Your task to perform on an android device: turn pop-ups on in chrome Image 0: 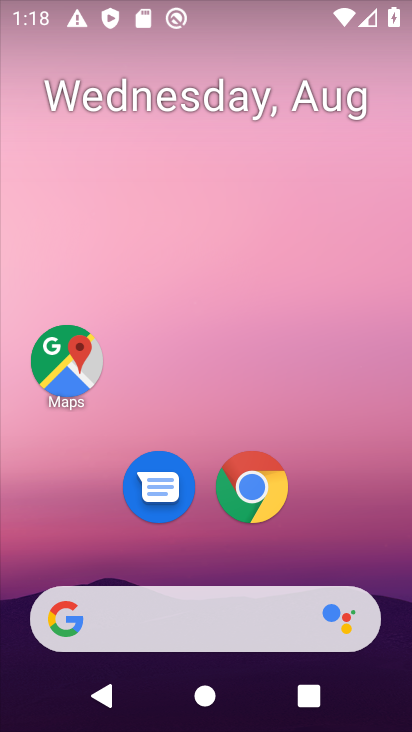
Step 0: press home button
Your task to perform on an android device: turn pop-ups on in chrome Image 1: 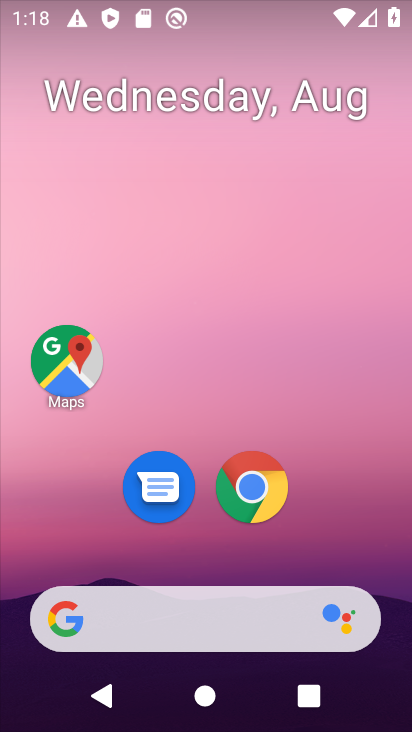
Step 1: drag from (323, 551) to (340, 97)
Your task to perform on an android device: turn pop-ups on in chrome Image 2: 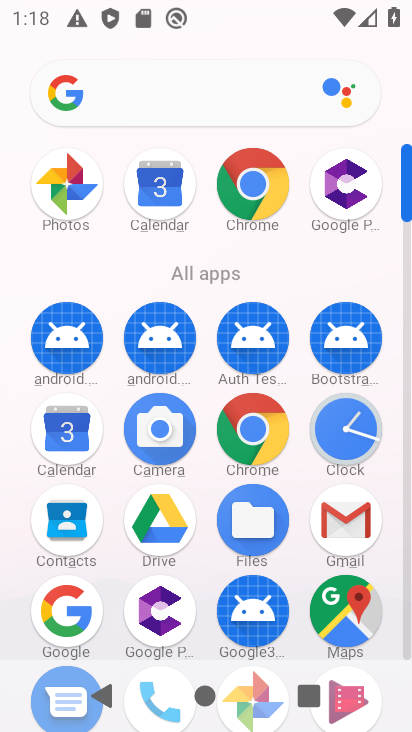
Step 2: click (251, 424)
Your task to perform on an android device: turn pop-ups on in chrome Image 3: 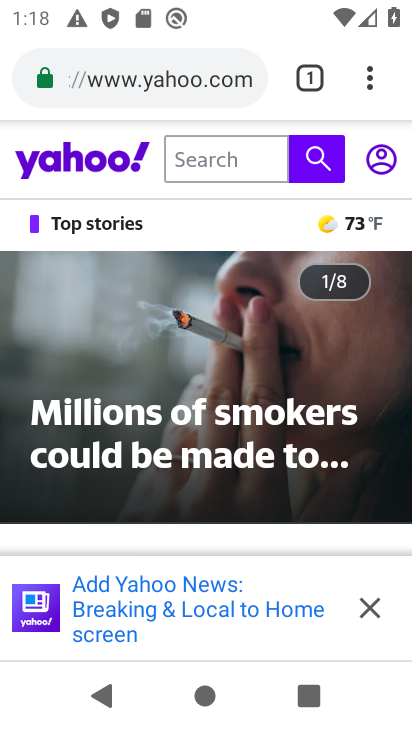
Step 3: drag from (374, 80) to (166, 549)
Your task to perform on an android device: turn pop-ups on in chrome Image 4: 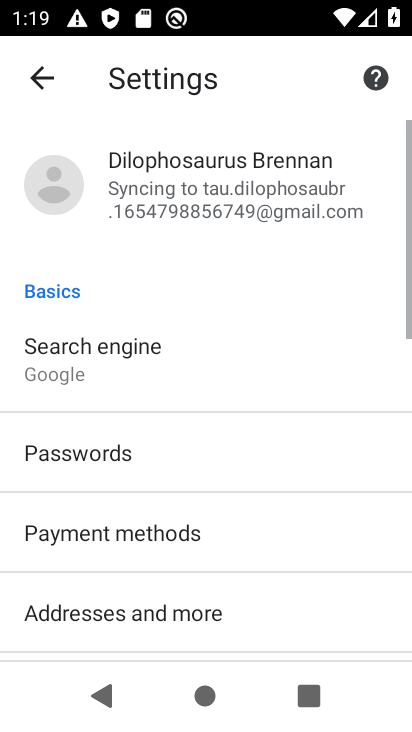
Step 4: drag from (276, 613) to (291, 229)
Your task to perform on an android device: turn pop-ups on in chrome Image 5: 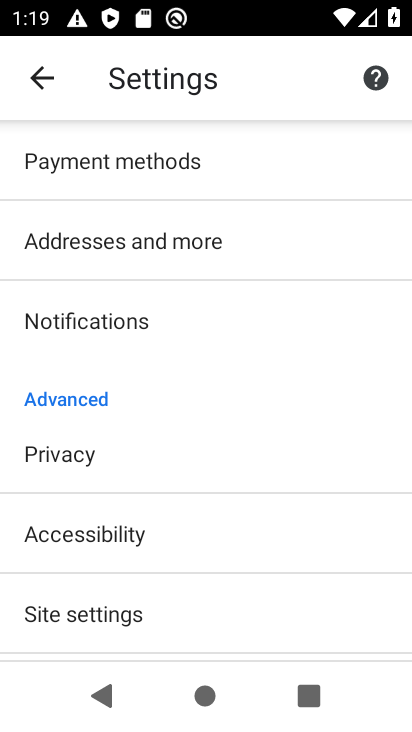
Step 5: click (100, 619)
Your task to perform on an android device: turn pop-ups on in chrome Image 6: 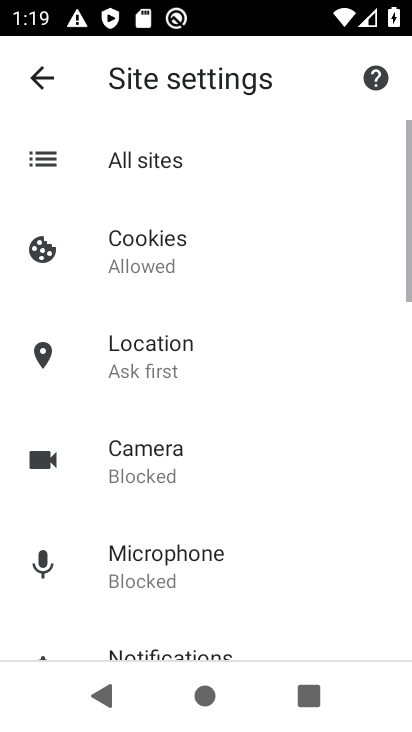
Step 6: drag from (235, 614) to (272, 251)
Your task to perform on an android device: turn pop-ups on in chrome Image 7: 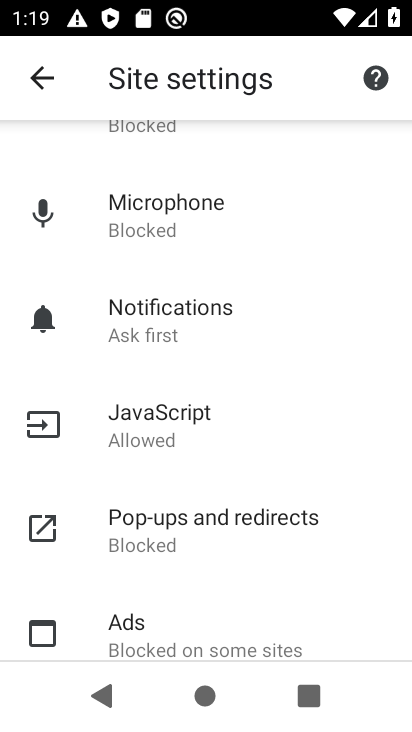
Step 7: click (159, 521)
Your task to perform on an android device: turn pop-ups on in chrome Image 8: 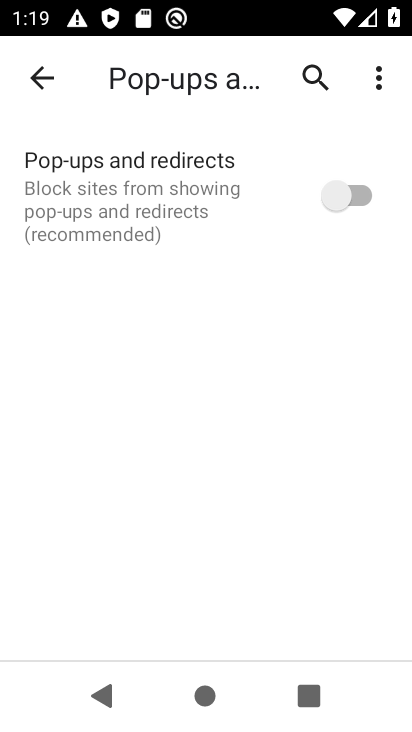
Step 8: click (260, 198)
Your task to perform on an android device: turn pop-ups on in chrome Image 9: 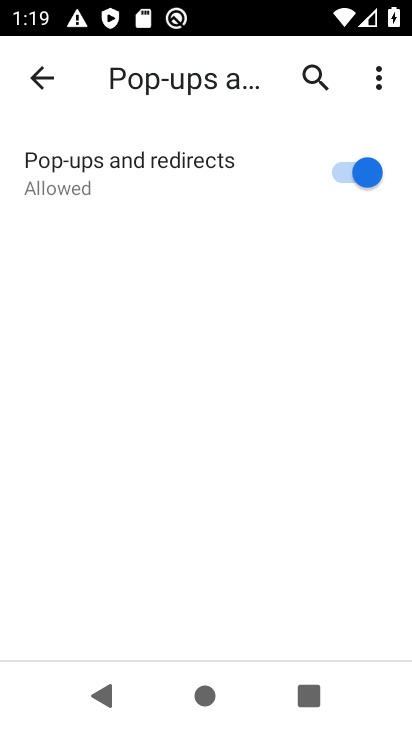
Step 9: task complete